Your task to perform on an android device: What is the news today? Image 0: 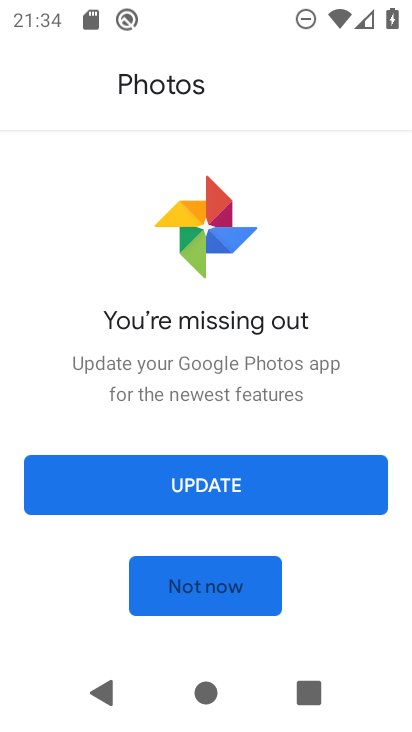
Step 0: press home button
Your task to perform on an android device: What is the news today? Image 1: 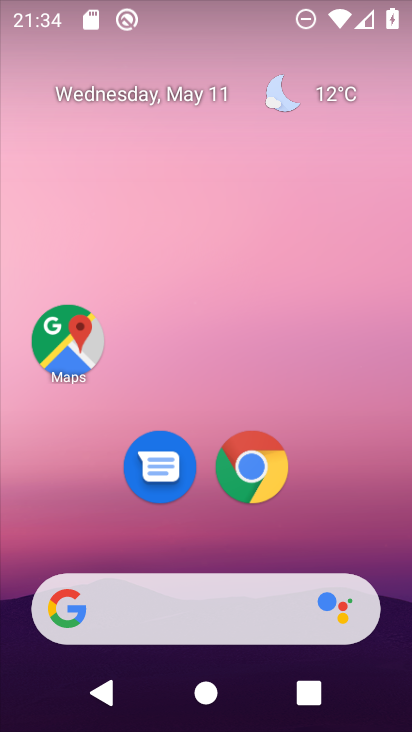
Step 1: task complete